Your task to perform on an android device: Open Amazon Image 0: 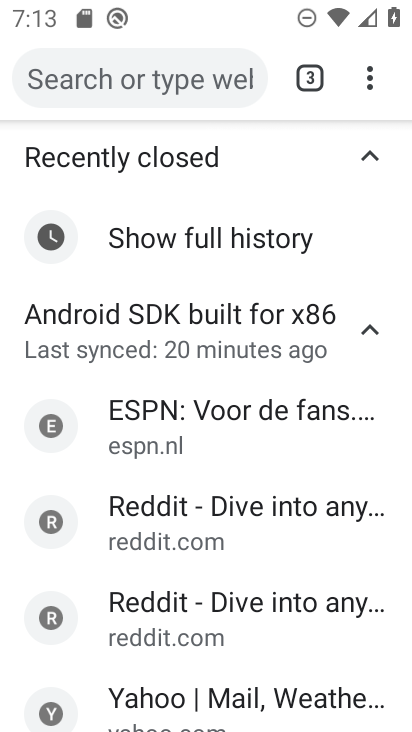
Step 0: click (368, 77)
Your task to perform on an android device: Open Amazon Image 1: 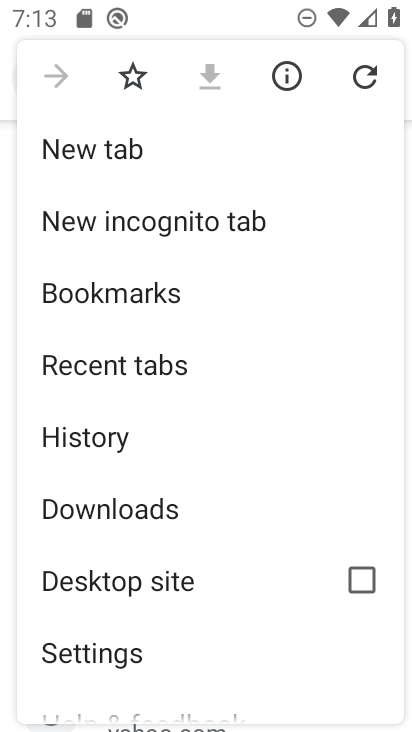
Step 1: click (108, 154)
Your task to perform on an android device: Open Amazon Image 2: 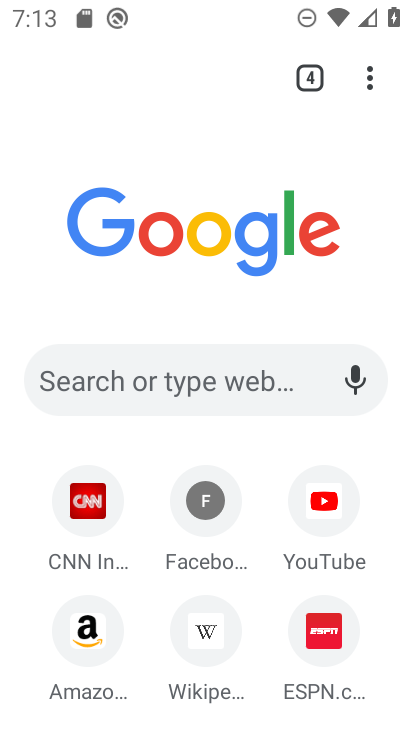
Step 2: click (96, 626)
Your task to perform on an android device: Open Amazon Image 3: 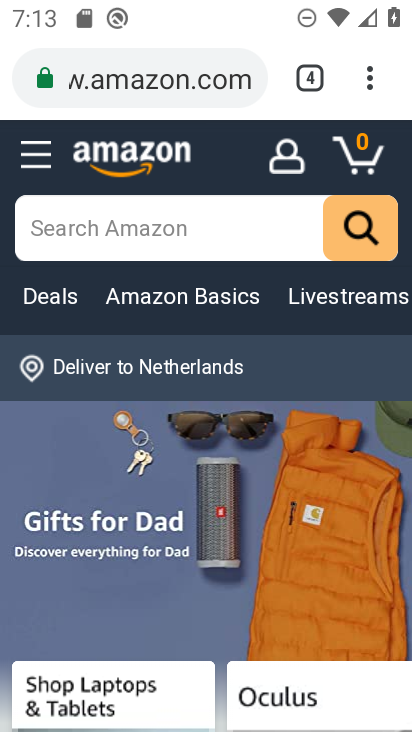
Step 3: task complete